Your task to perform on an android device: toggle pop-ups in chrome Image 0: 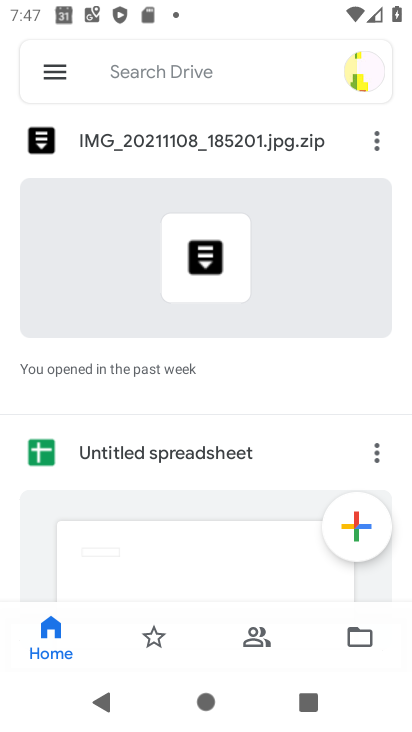
Step 0: press home button
Your task to perform on an android device: toggle pop-ups in chrome Image 1: 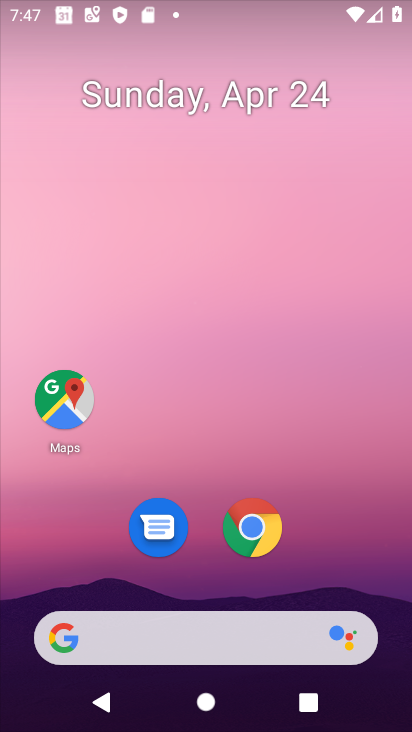
Step 1: drag from (355, 569) to (320, 10)
Your task to perform on an android device: toggle pop-ups in chrome Image 2: 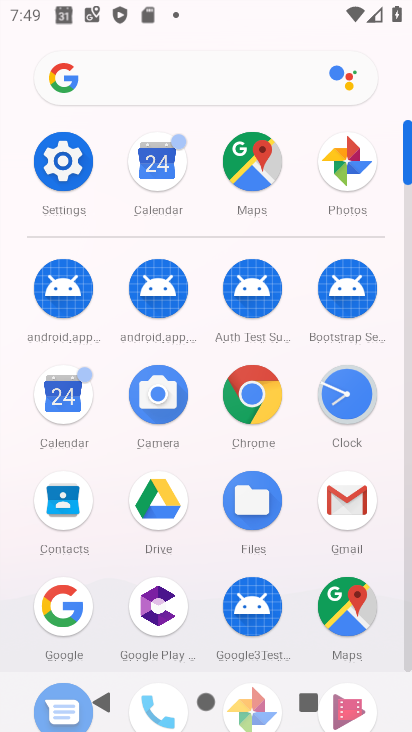
Step 2: click (260, 404)
Your task to perform on an android device: toggle pop-ups in chrome Image 3: 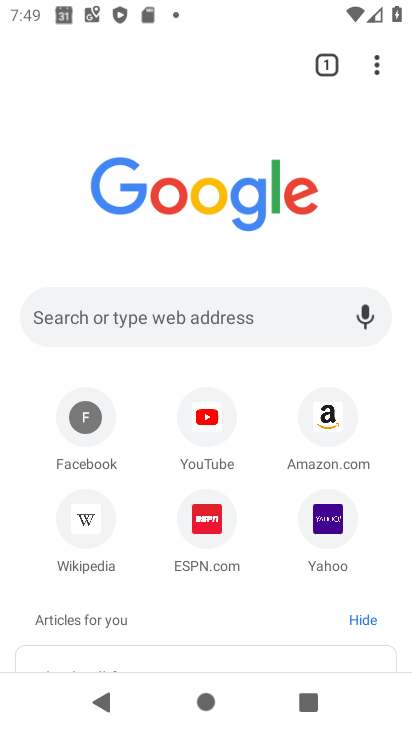
Step 3: click (380, 61)
Your task to perform on an android device: toggle pop-ups in chrome Image 4: 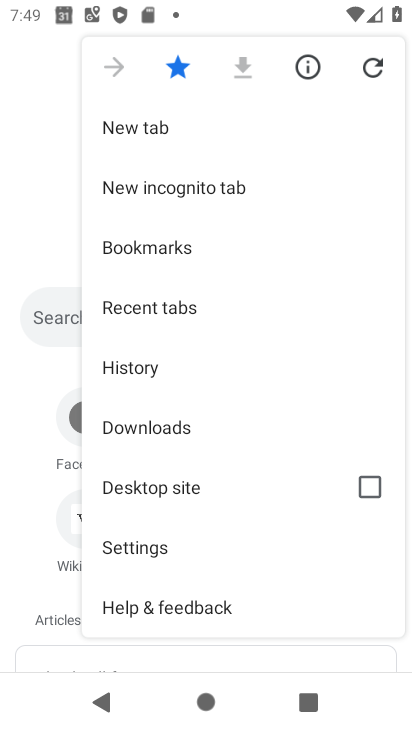
Step 4: click (184, 542)
Your task to perform on an android device: toggle pop-ups in chrome Image 5: 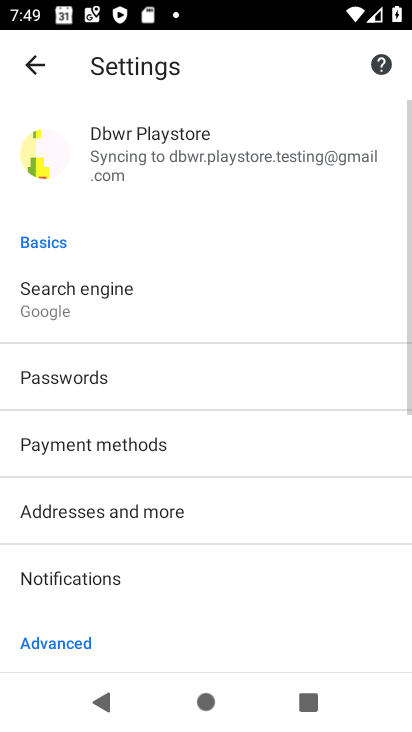
Step 5: drag from (102, 572) to (201, 123)
Your task to perform on an android device: toggle pop-ups in chrome Image 6: 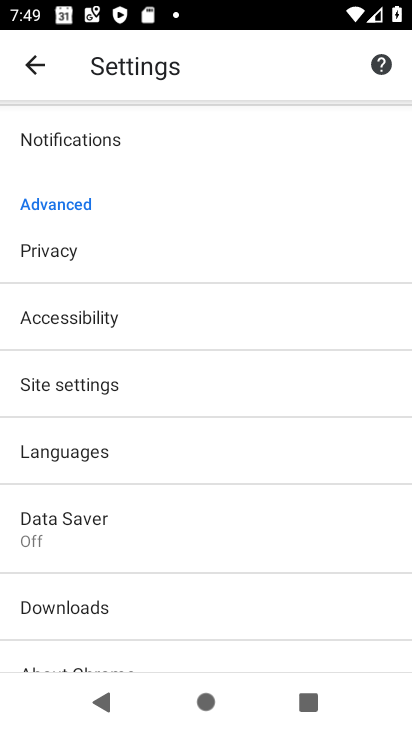
Step 6: click (148, 387)
Your task to perform on an android device: toggle pop-ups in chrome Image 7: 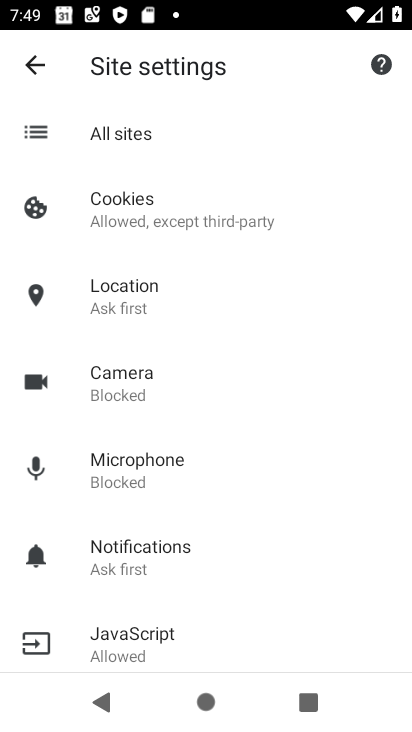
Step 7: drag from (133, 633) to (211, 271)
Your task to perform on an android device: toggle pop-ups in chrome Image 8: 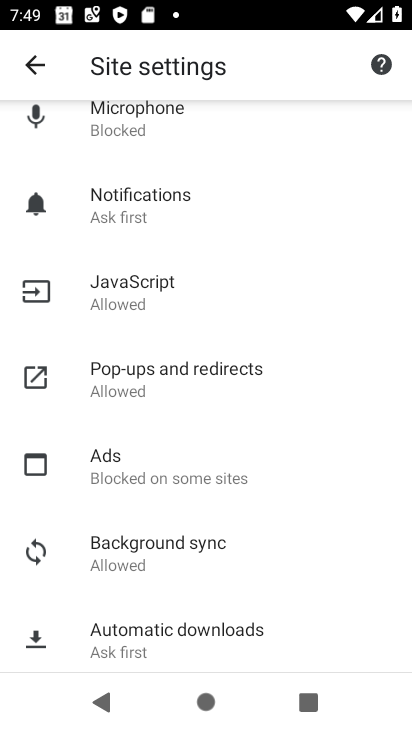
Step 8: click (144, 384)
Your task to perform on an android device: toggle pop-ups in chrome Image 9: 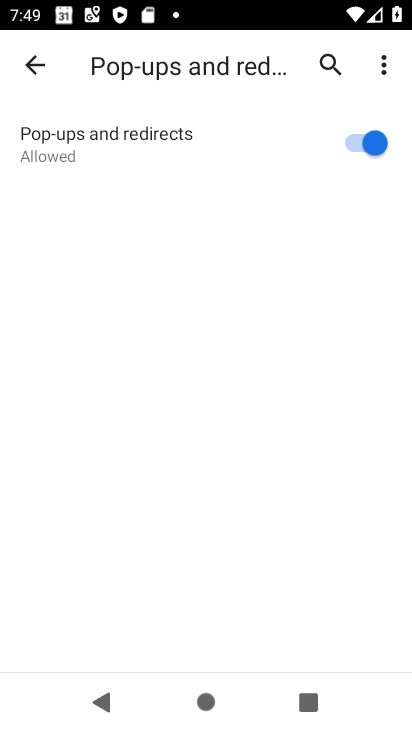
Step 9: click (343, 140)
Your task to perform on an android device: toggle pop-ups in chrome Image 10: 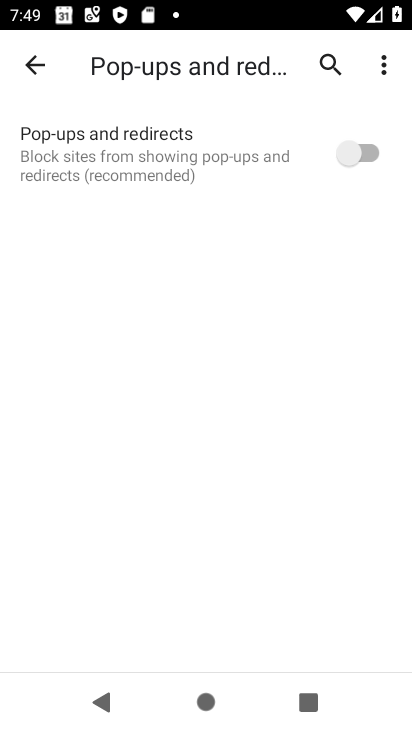
Step 10: task complete